Your task to perform on an android device: turn on the 24-hour format for clock Image 0: 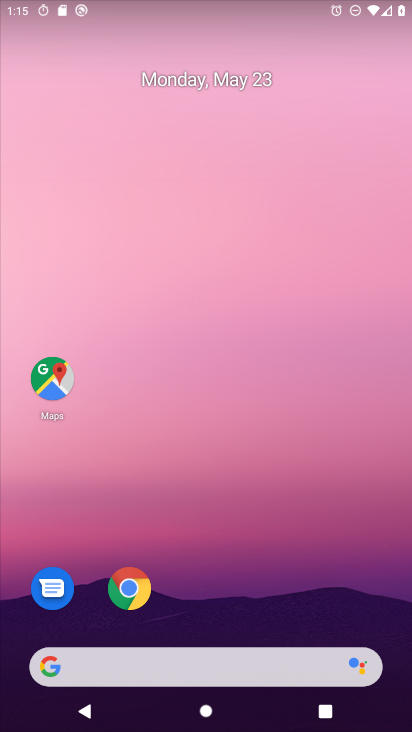
Step 0: drag from (291, 691) to (255, 248)
Your task to perform on an android device: turn on the 24-hour format for clock Image 1: 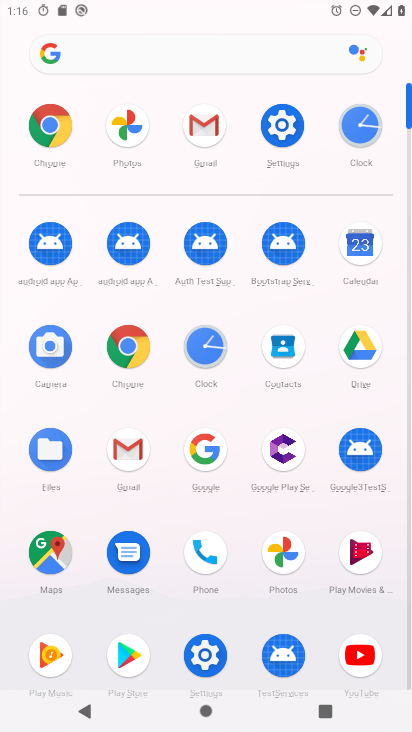
Step 1: click (212, 356)
Your task to perform on an android device: turn on the 24-hour format for clock Image 2: 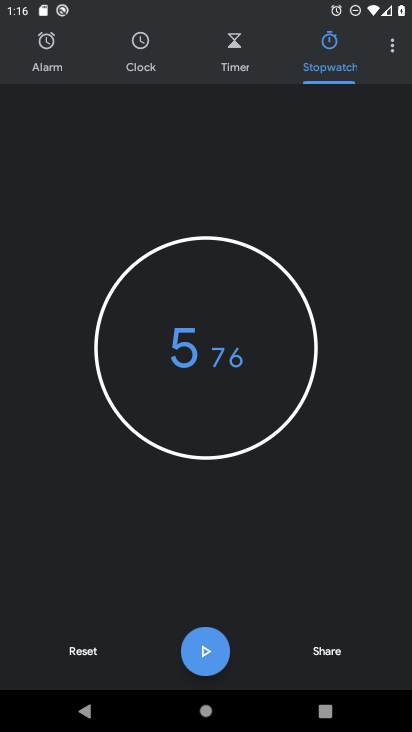
Step 2: click (395, 59)
Your task to perform on an android device: turn on the 24-hour format for clock Image 3: 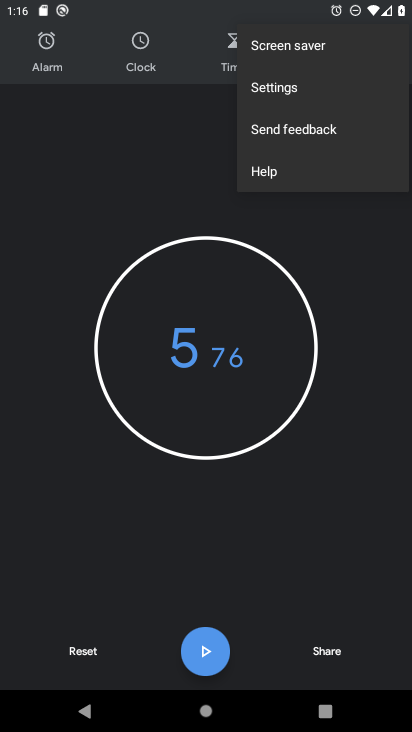
Step 3: click (259, 79)
Your task to perform on an android device: turn on the 24-hour format for clock Image 4: 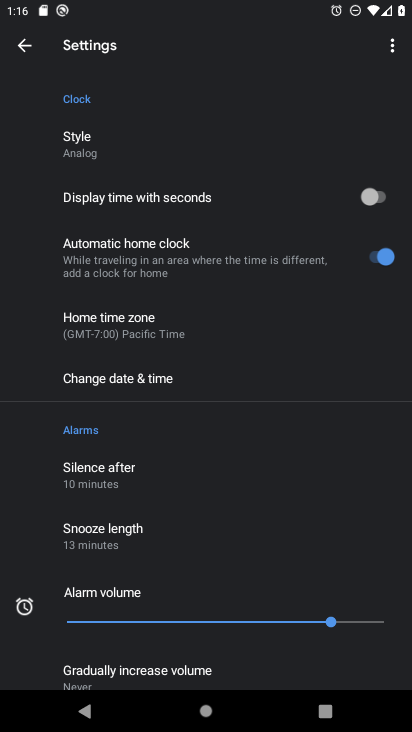
Step 4: click (159, 386)
Your task to perform on an android device: turn on the 24-hour format for clock Image 5: 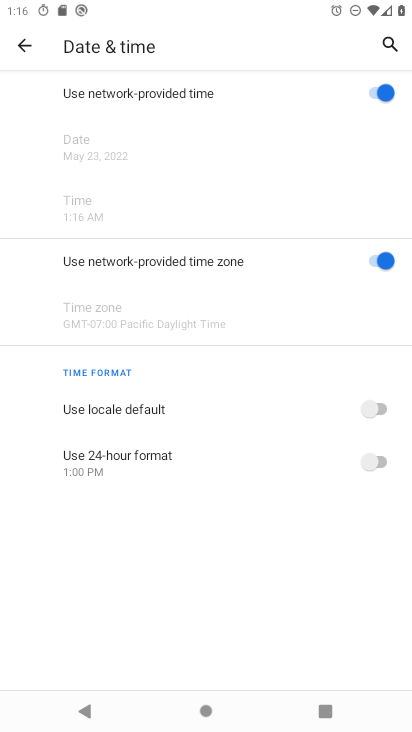
Step 5: click (377, 464)
Your task to perform on an android device: turn on the 24-hour format for clock Image 6: 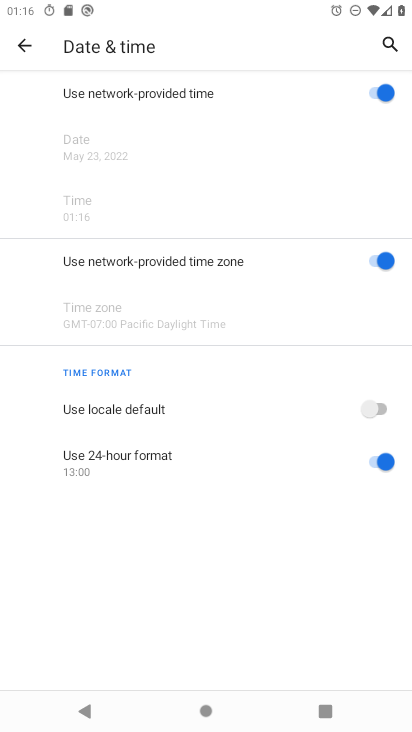
Step 6: task complete